Your task to perform on an android device: turn on data saver in the chrome app Image 0: 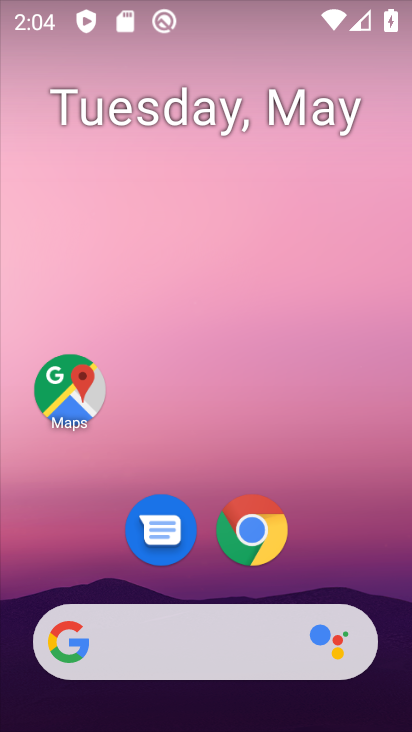
Step 0: click (261, 504)
Your task to perform on an android device: turn on data saver in the chrome app Image 1: 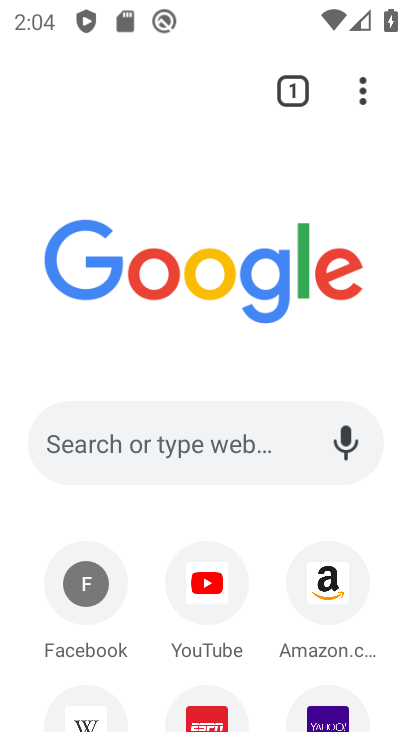
Step 1: drag from (358, 87) to (87, 580)
Your task to perform on an android device: turn on data saver in the chrome app Image 2: 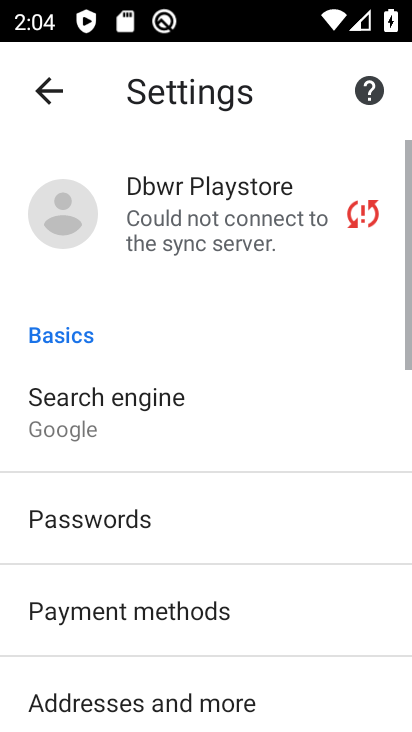
Step 2: drag from (188, 598) to (247, 244)
Your task to perform on an android device: turn on data saver in the chrome app Image 3: 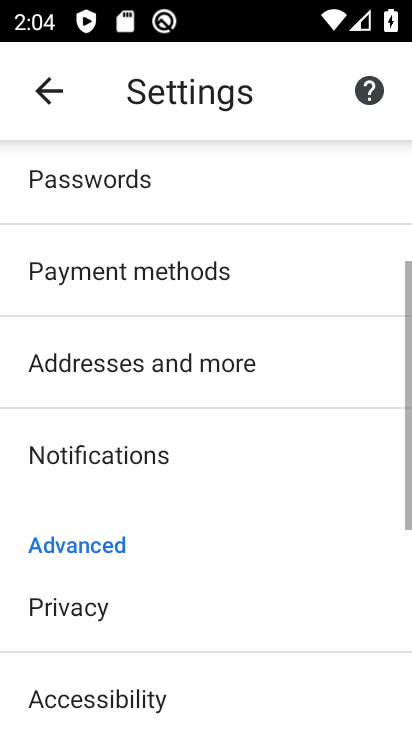
Step 3: drag from (180, 544) to (216, 291)
Your task to perform on an android device: turn on data saver in the chrome app Image 4: 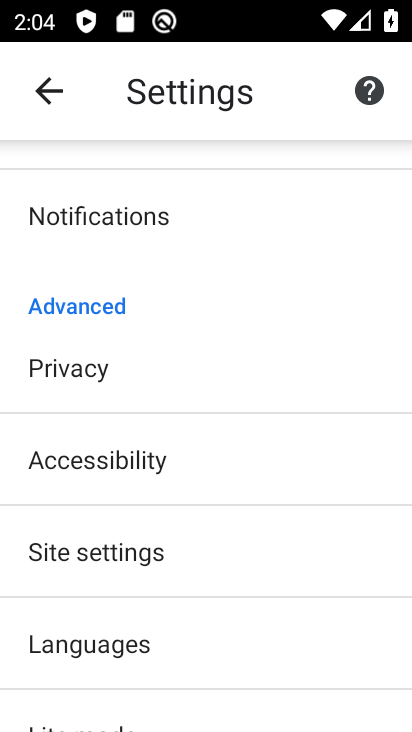
Step 4: drag from (129, 597) to (189, 336)
Your task to perform on an android device: turn on data saver in the chrome app Image 5: 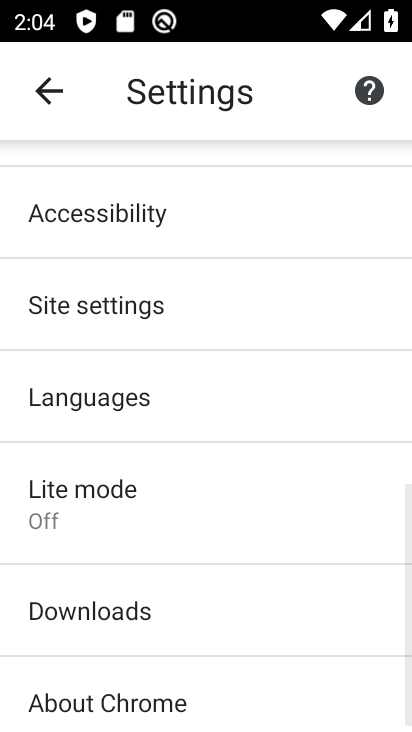
Step 5: drag from (141, 552) to (95, 487)
Your task to perform on an android device: turn on data saver in the chrome app Image 6: 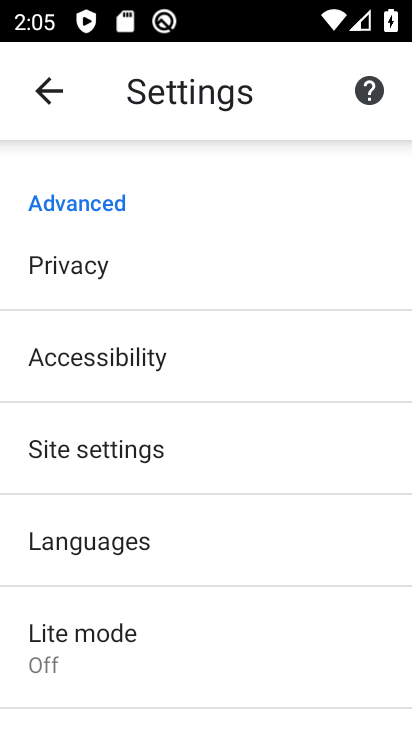
Step 6: click (126, 614)
Your task to perform on an android device: turn on data saver in the chrome app Image 7: 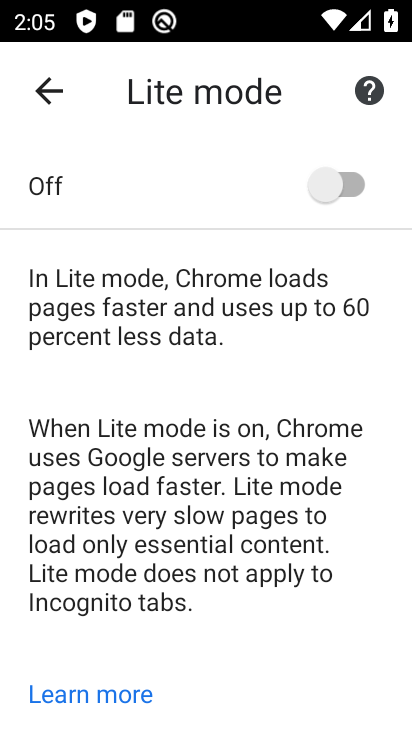
Step 7: click (357, 181)
Your task to perform on an android device: turn on data saver in the chrome app Image 8: 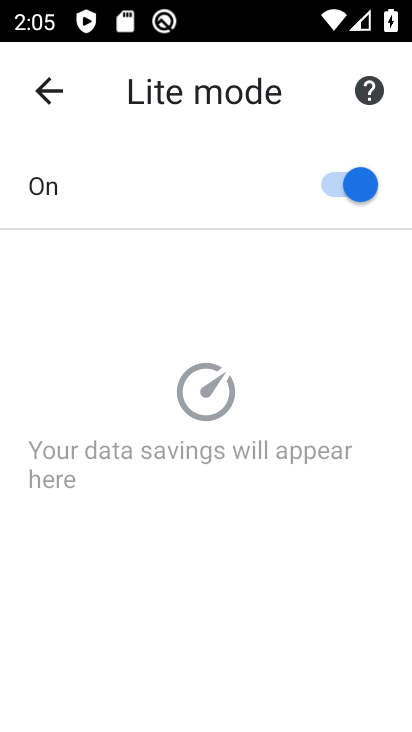
Step 8: task complete